Your task to perform on an android device: turn on data saver in the chrome app Image 0: 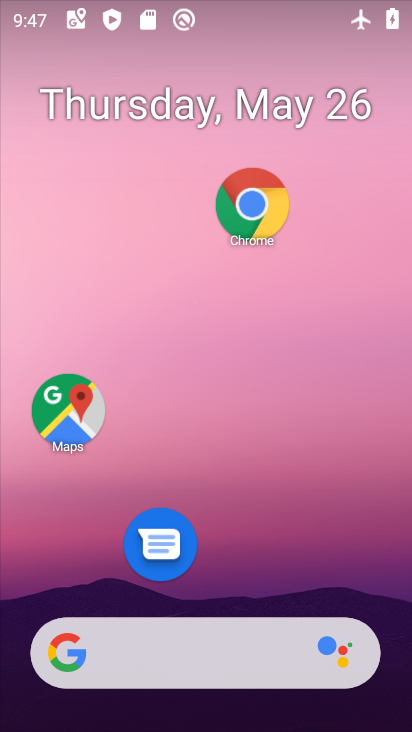
Step 0: click (244, 197)
Your task to perform on an android device: turn on data saver in the chrome app Image 1: 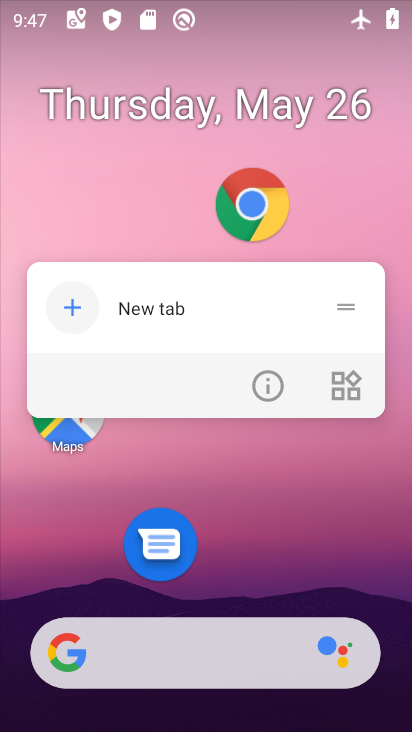
Step 1: click (244, 197)
Your task to perform on an android device: turn on data saver in the chrome app Image 2: 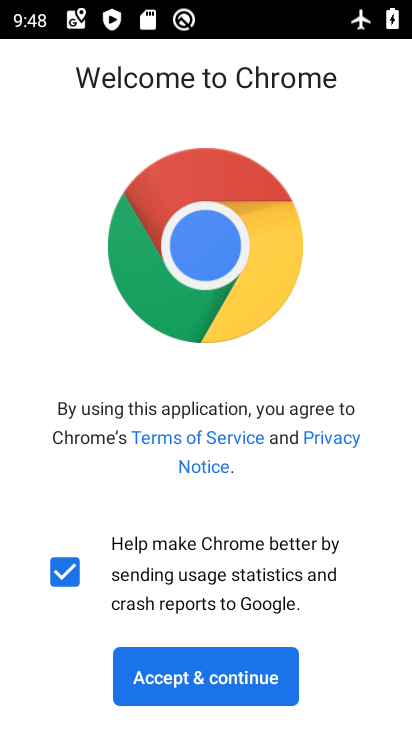
Step 2: click (219, 671)
Your task to perform on an android device: turn on data saver in the chrome app Image 3: 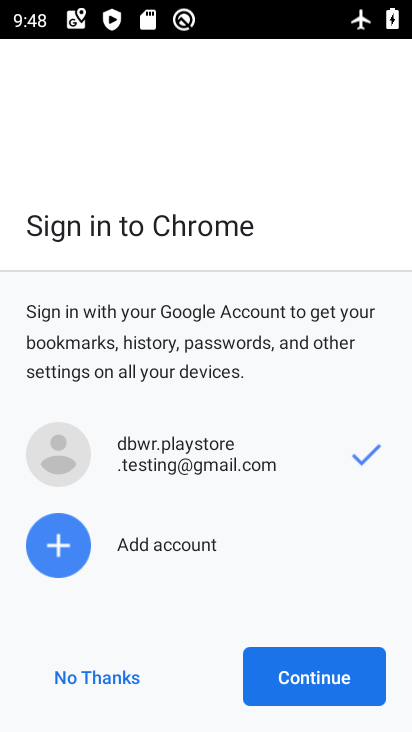
Step 3: click (323, 671)
Your task to perform on an android device: turn on data saver in the chrome app Image 4: 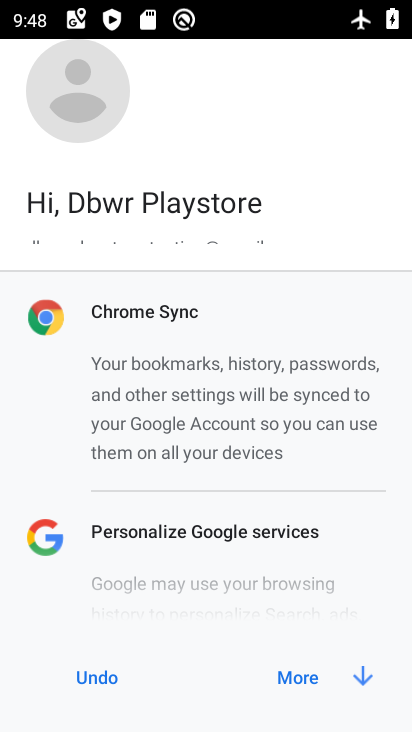
Step 4: click (321, 681)
Your task to perform on an android device: turn on data saver in the chrome app Image 5: 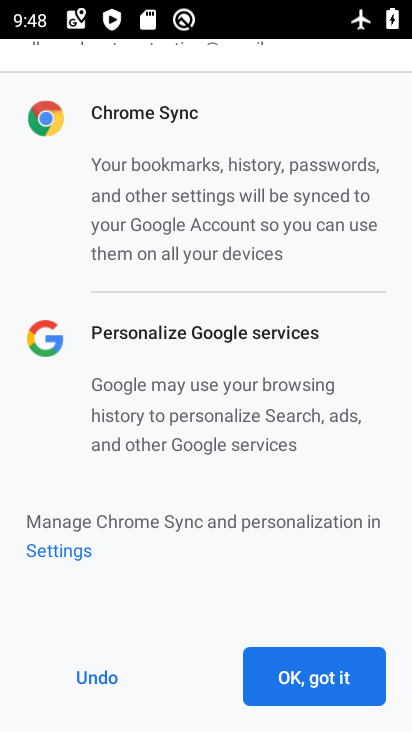
Step 5: click (321, 677)
Your task to perform on an android device: turn on data saver in the chrome app Image 6: 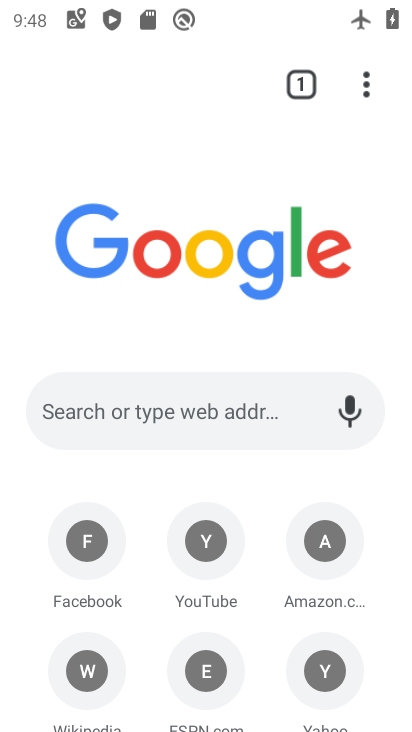
Step 6: click (372, 85)
Your task to perform on an android device: turn on data saver in the chrome app Image 7: 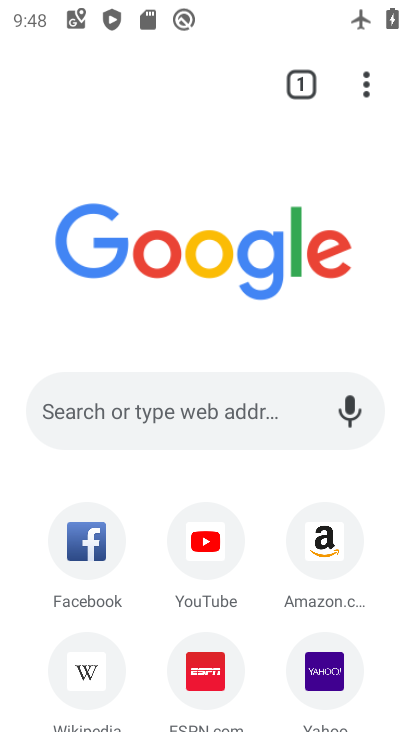
Step 7: click (372, 85)
Your task to perform on an android device: turn on data saver in the chrome app Image 8: 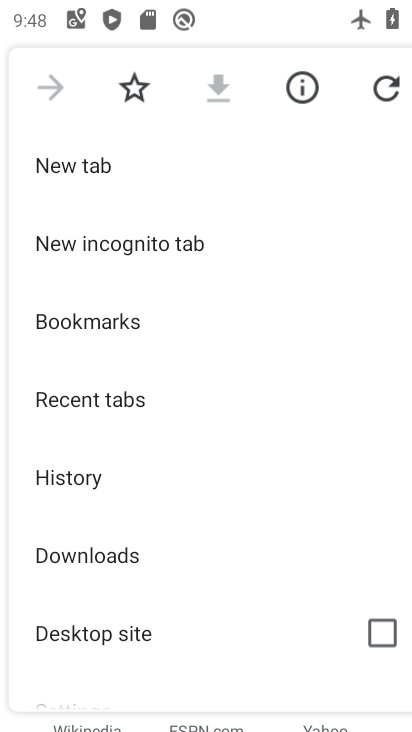
Step 8: drag from (179, 630) to (185, 131)
Your task to perform on an android device: turn on data saver in the chrome app Image 9: 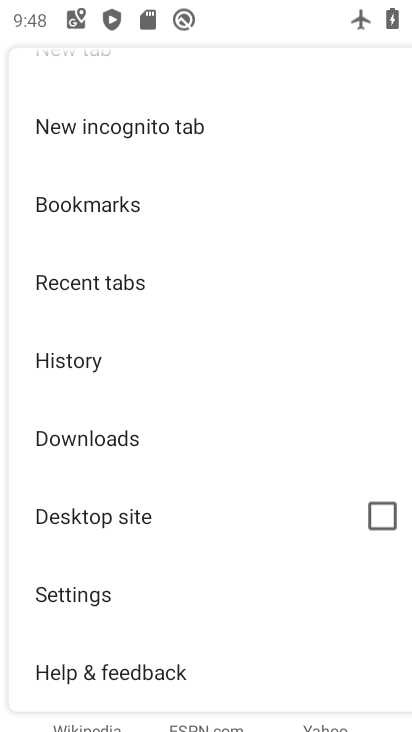
Step 9: click (127, 586)
Your task to perform on an android device: turn on data saver in the chrome app Image 10: 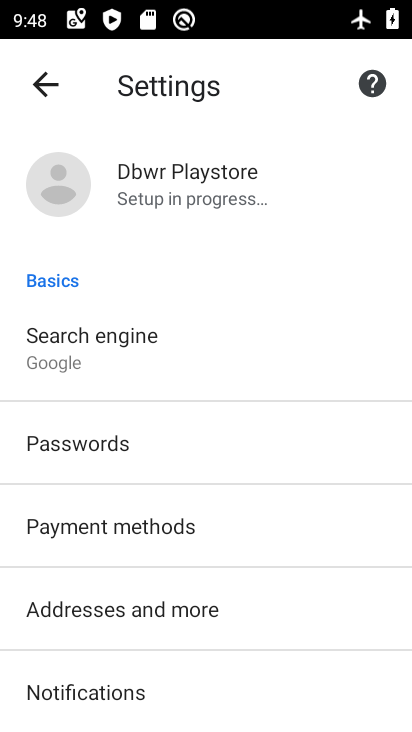
Step 10: drag from (227, 665) to (227, 184)
Your task to perform on an android device: turn on data saver in the chrome app Image 11: 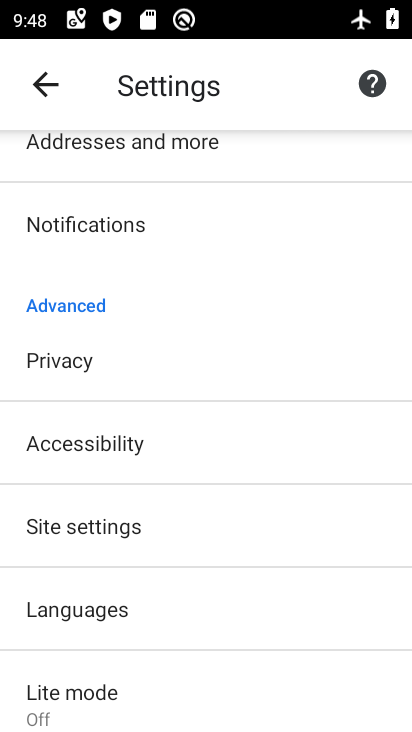
Step 11: click (158, 686)
Your task to perform on an android device: turn on data saver in the chrome app Image 12: 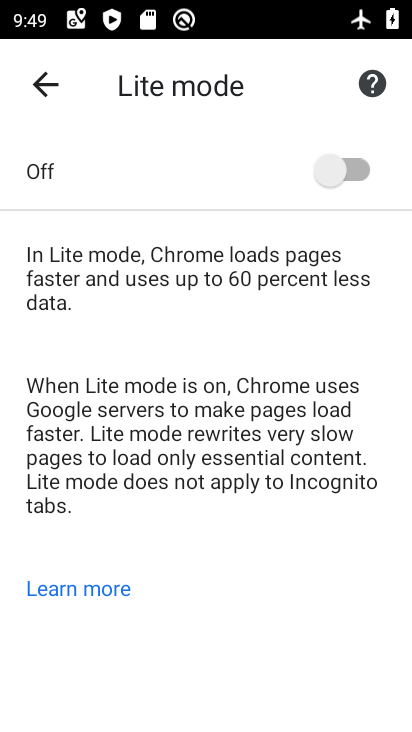
Step 12: click (349, 172)
Your task to perform on an android device: turn on data saver in the chrome app Image 13: 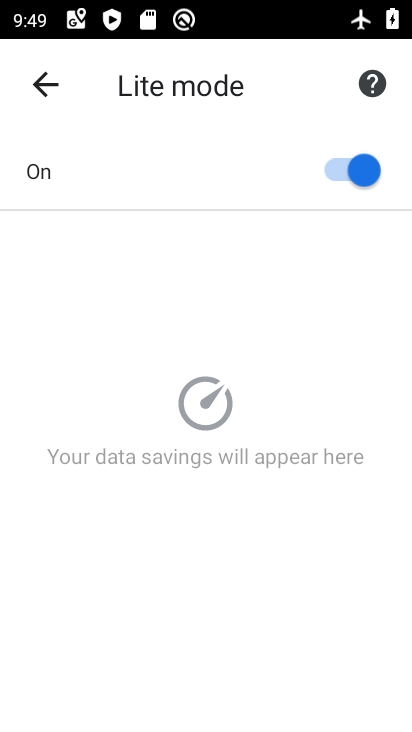
Step 13: task complete